Your task to perform on an android device: What's on my calendar today? Image 0: 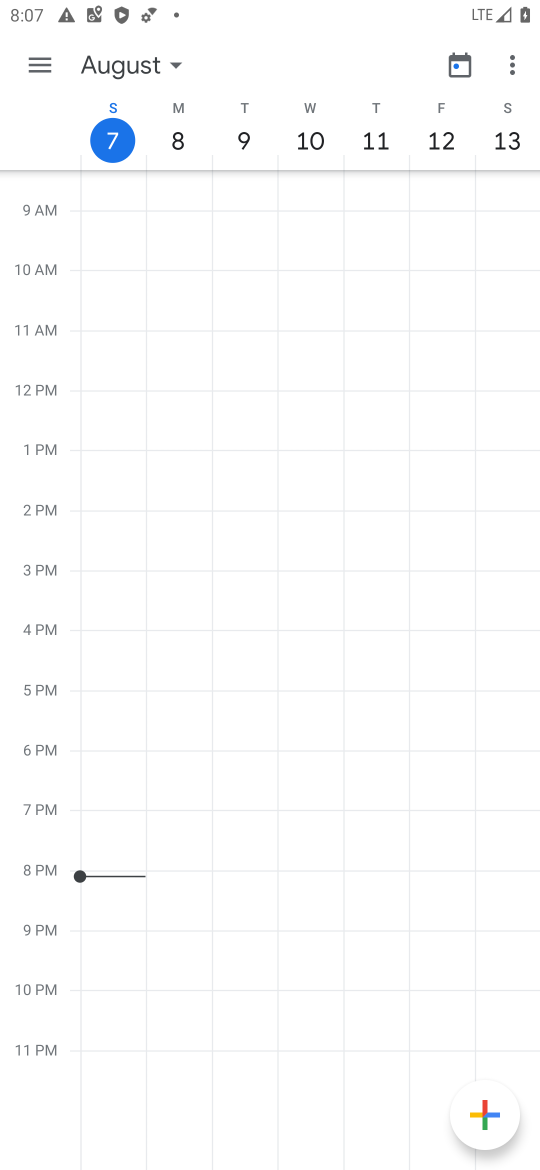
Step 0: click (181, 133)
Your task to perform on an android device: What's on my calendar today? Image 1: 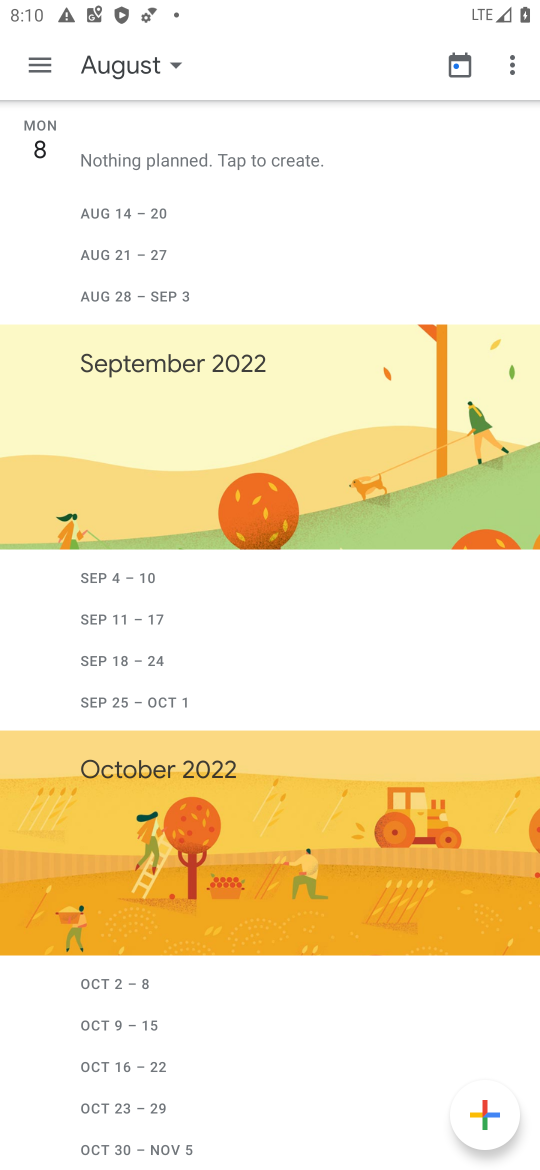
Step 1: task complete